Your task to perform on an android device: turn smart compose on in the gmail app Image 0: 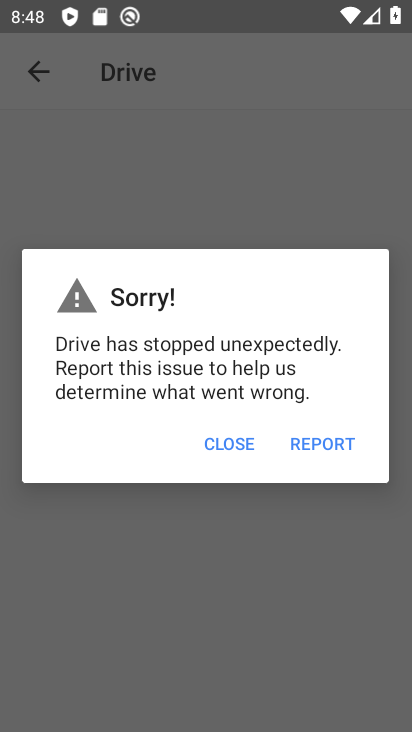
Step 0: press home button
Your task to perform on an android device: turn smart compose on in the gmail app Image 1: 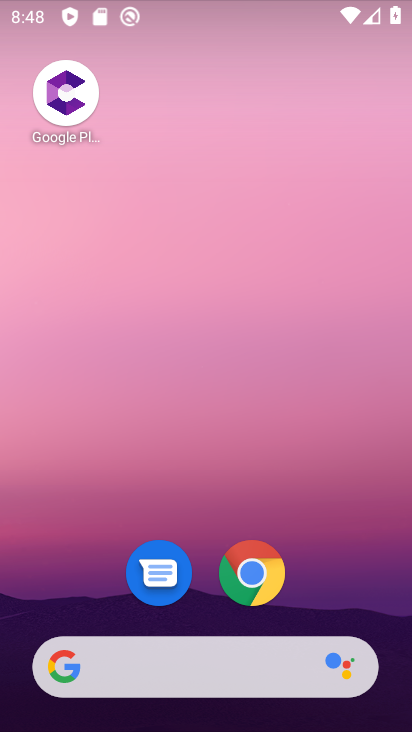
Step 1: click (410, 397)
Your task to perform on an android device: turn smart compose on in the gmail app Image 2: 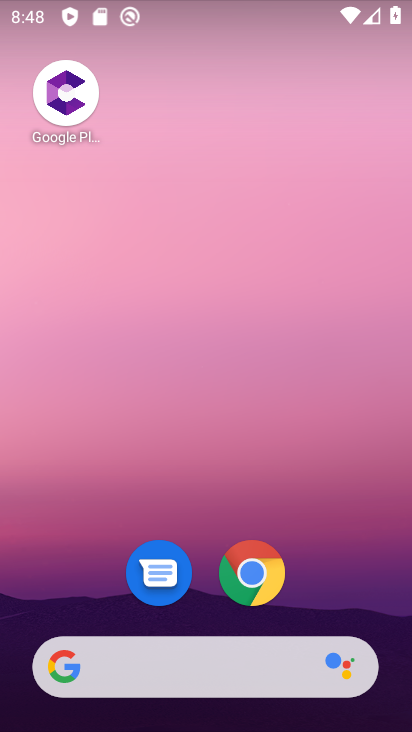
Step 2: drag from (78, 610) to (359, 567)
Your task to perform on an android device: turn smart compose on in the gmail app Image 3: 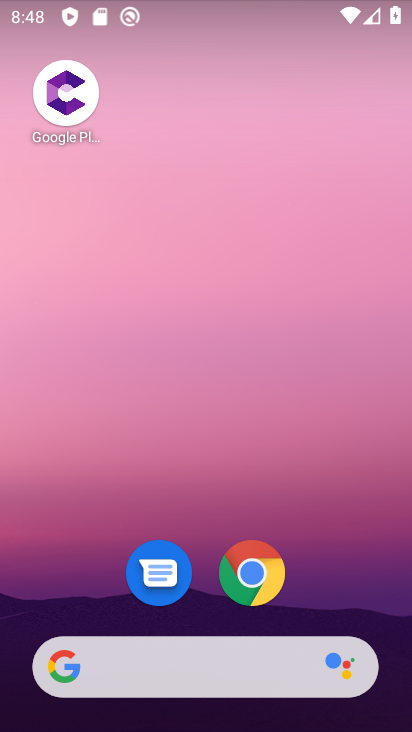
Step 3: click (331, 530)
Your task to perform on an android device: turn smart compose on in the gmail app Image 4: 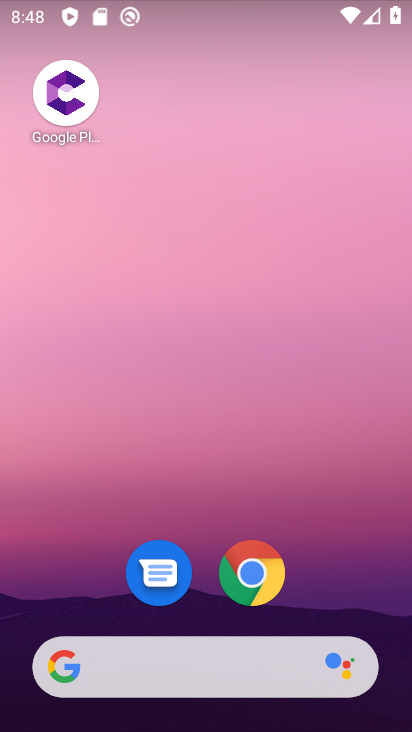
Step 4: drag from (331, 516) to (411, 569)
Your task to perform on an android device: turn smart compose on in the gmail app Image 5: 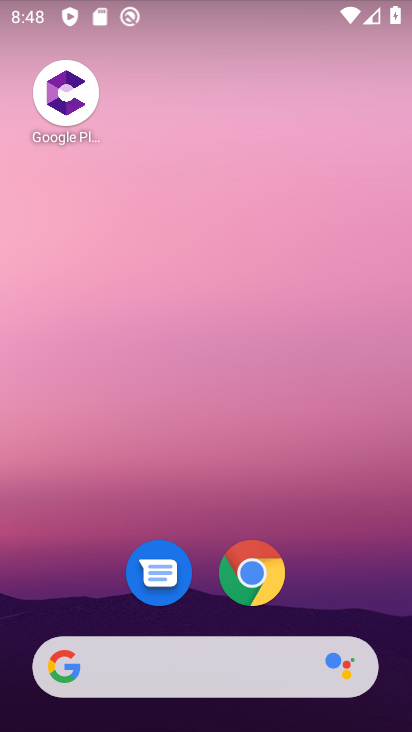
Step 5: drag from (128, 567) to (293, 12)
Your task to perform on an android device: turn smart compose on in the gmail app Image 6: 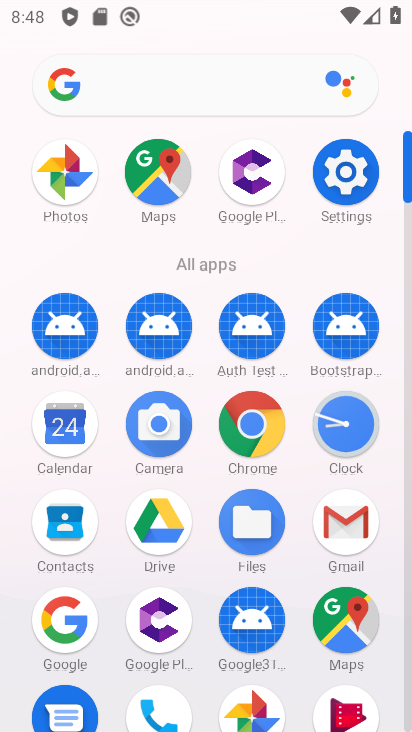
Step 6: click (365, 526)
Your task to perform on an android device: turn smart compose on in the gmail app Image 7: 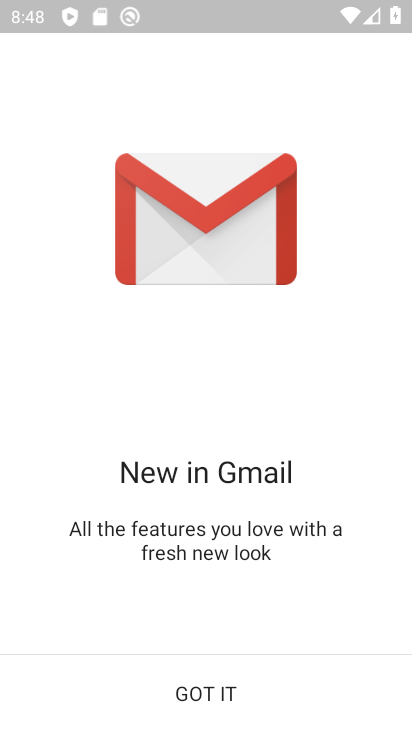
Step 7: click (266, 694)
Your task to perform on an android device: turn smart compose on in the gmail app Image 8: 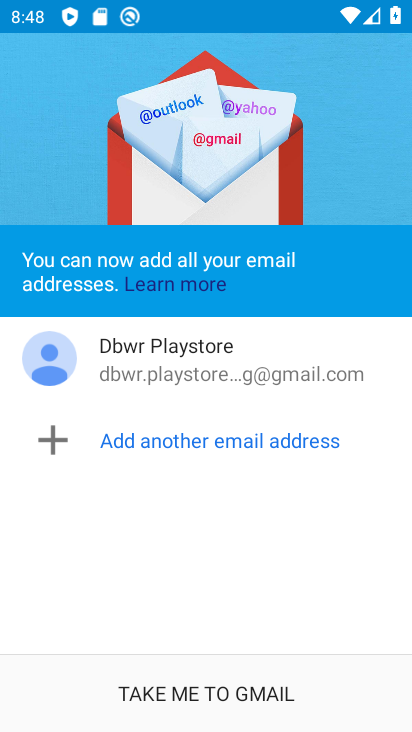
Step 8: click (264, 696)
Your task to perform on an android device: turn smart compose on in the gmail app Image 9: 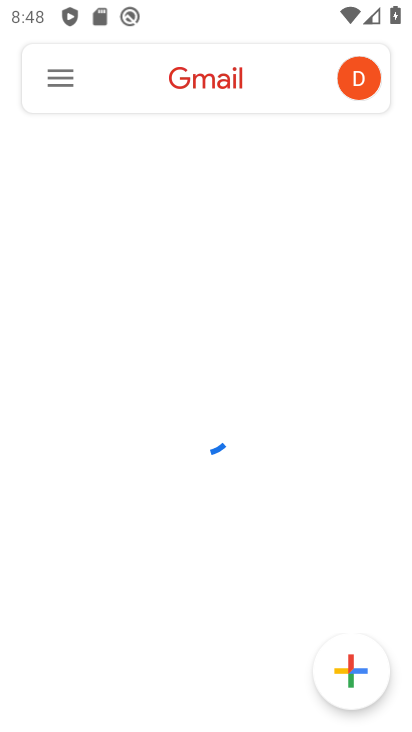
Step 9: click (59, 76)
Your task to perform on an android device: turn smart compose on in the gmail app Image 10: 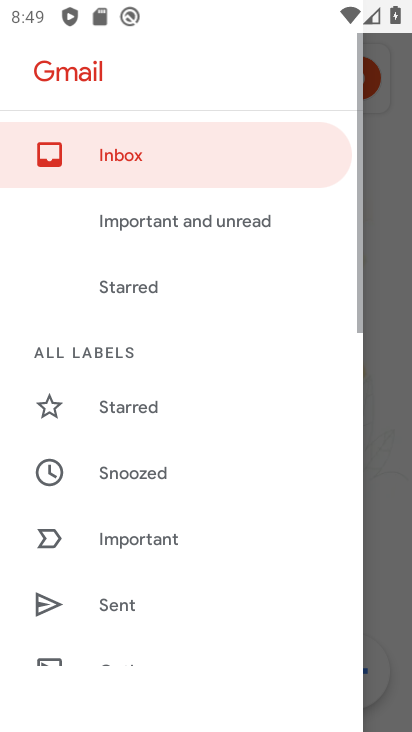
Step 10: drag from (186, 658) to (333, 208)
Your task to perform on an android device: turn smart compose on in the gmail app Image 11: 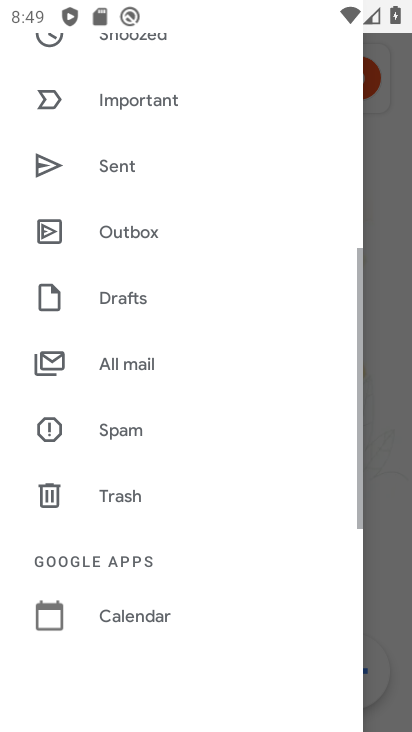
Step 11: drag from (204, 617) to (344, 148)
Your task to perform on an android device: turn smart compose on in the gmail app Image 12: 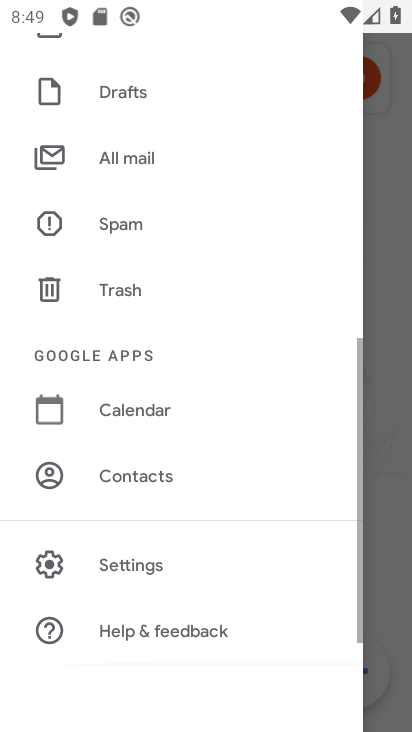
Step 12: click (163, 557)
Your task to perform on an android device: turn smart compose on in the gmail app Image 13: 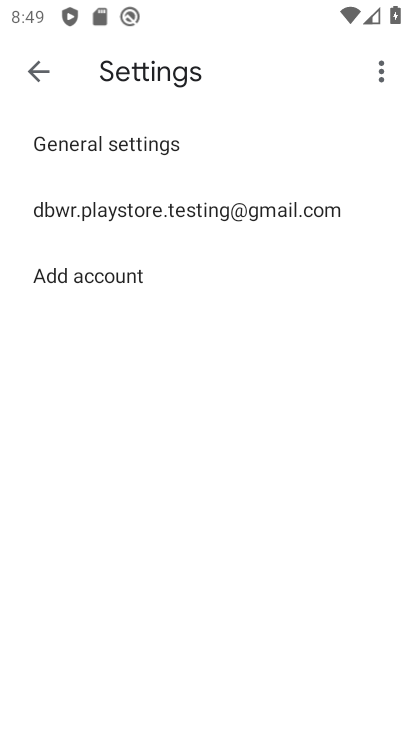
Step 13: click (284, 188)
Your task to perform on an android device: turn smart compose on in the gmail app Image 14: 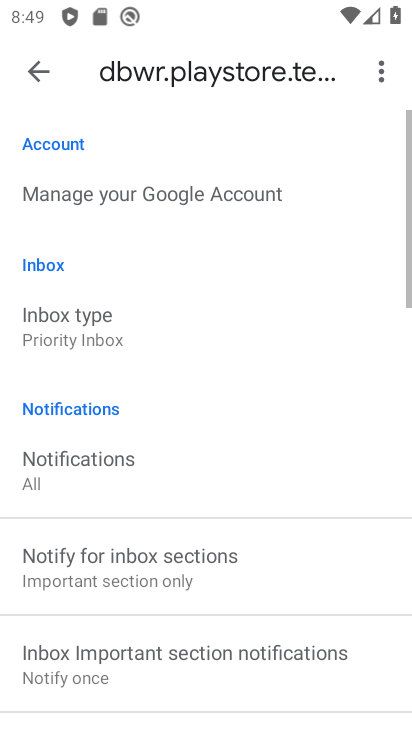
Step 14: task complete